Your task to perform on an android device: Search for seafood restaurants on Google Maps Image 0: 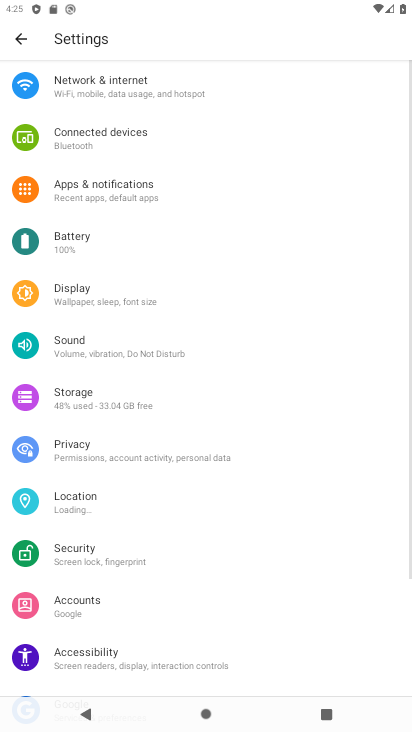
Step 0: press back button
Your task to perform on an android device: Search for seafood restaurants on Google Maps Image 1: 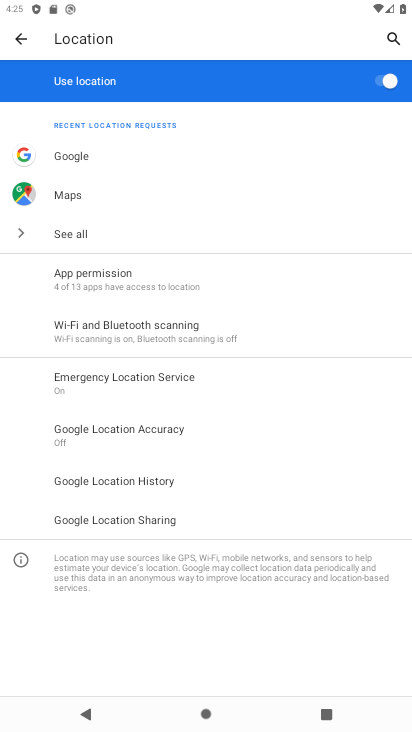
Step 1: press back button
Your task to perform on an android device: Search for seafood restaurants on Google Maps Image 2: 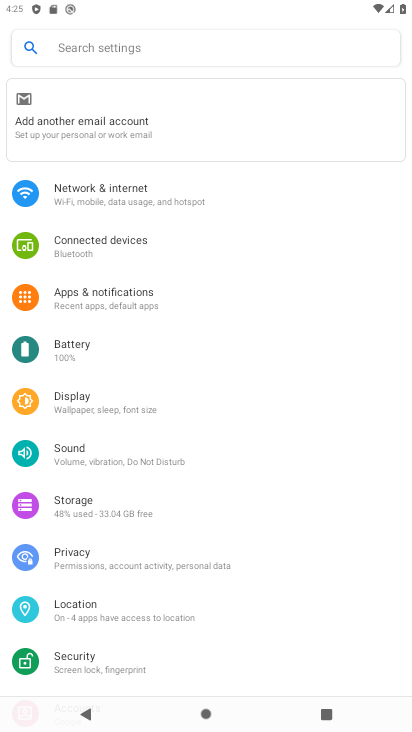
Step 2: press home button
Your task to perform on an android device: Search for seafood restaurants on Google Maps Image 3: 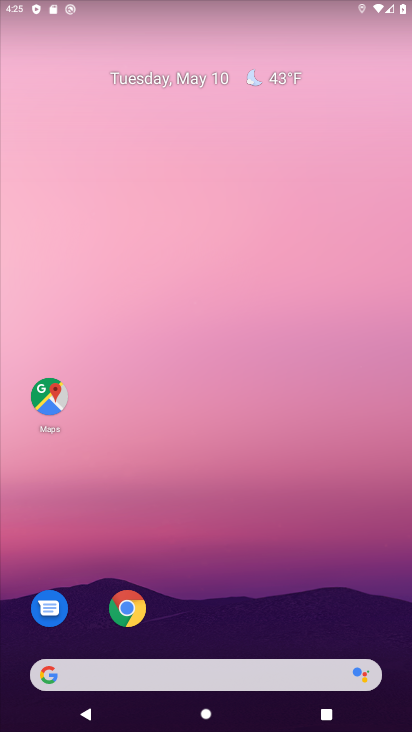
Step 3: click (57, 392)
Your task to perform on an android device: Search for seafood restaurants on Google Maps Image 4: 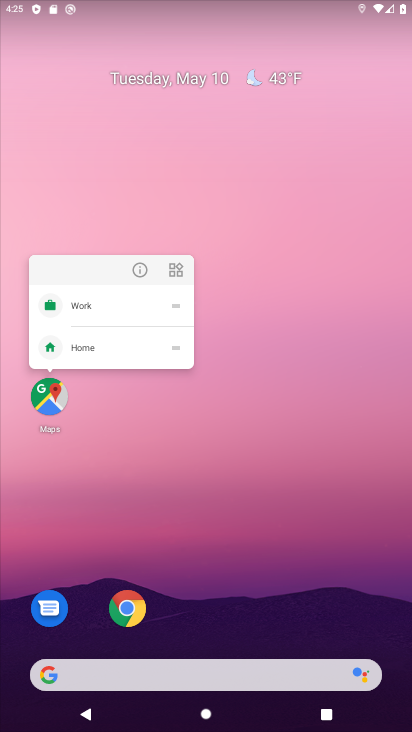
Step 4: click (52, 407)
Your task to perform on an android device: Search for seafood restaurants on Google Maps Image 5: 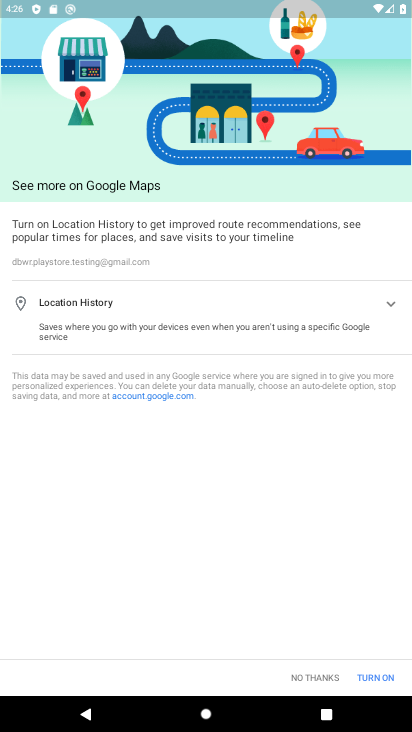
Step 5: task complete